Your task to perform on an android device: open app "Facebook Messenger" (install if not already installed) Image 0: 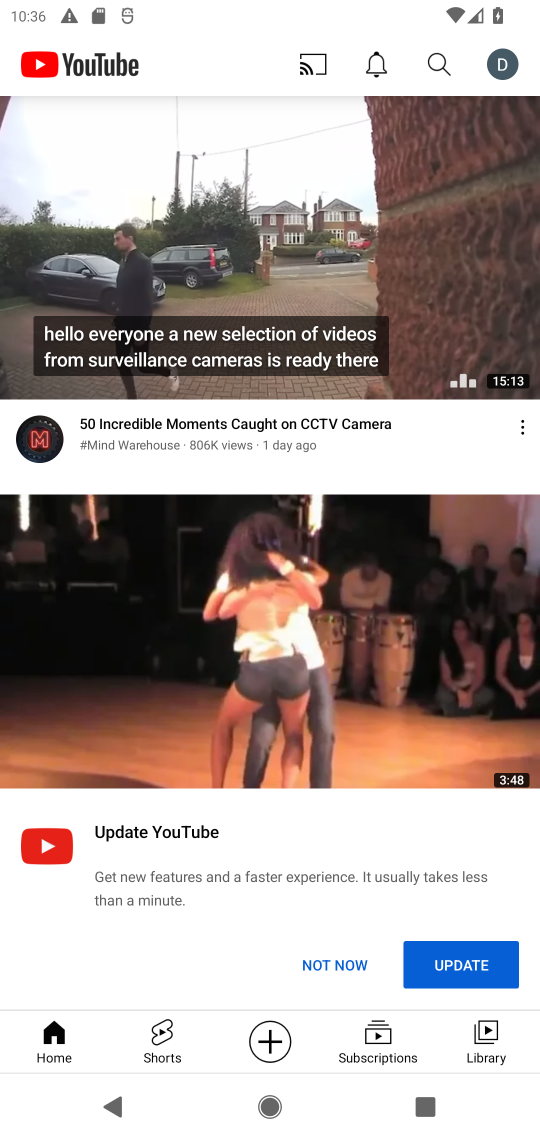
Step 0: press home button
Your task to perform on an android device: open app "Facebook Messenger" (install if not already installed) Image 1: 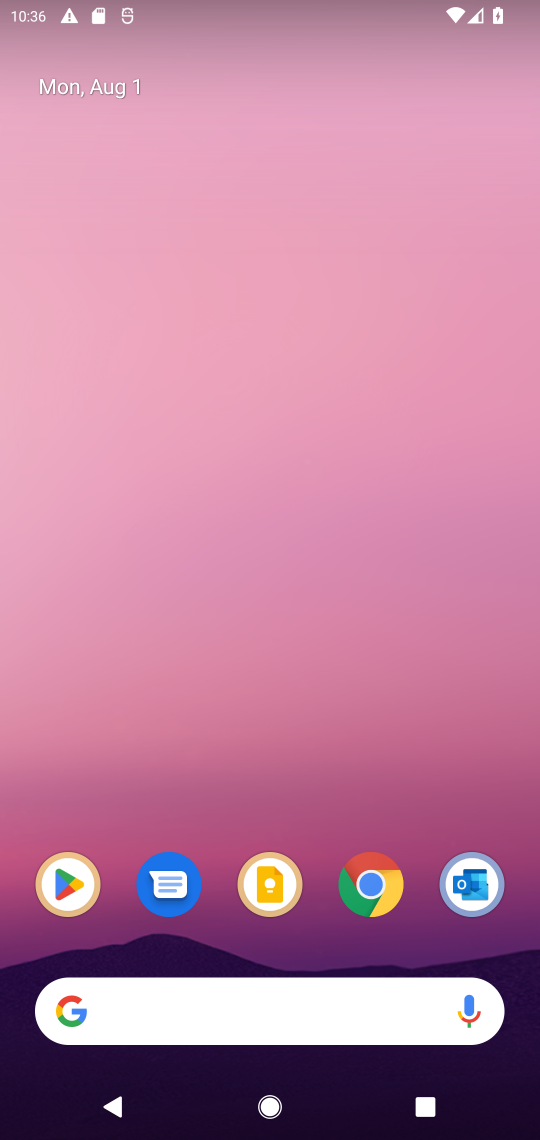
Step 1: click (41, 893)
Your task to perform on an android device: open app "Facebook Messenger" (install if not already installed) Image 2: 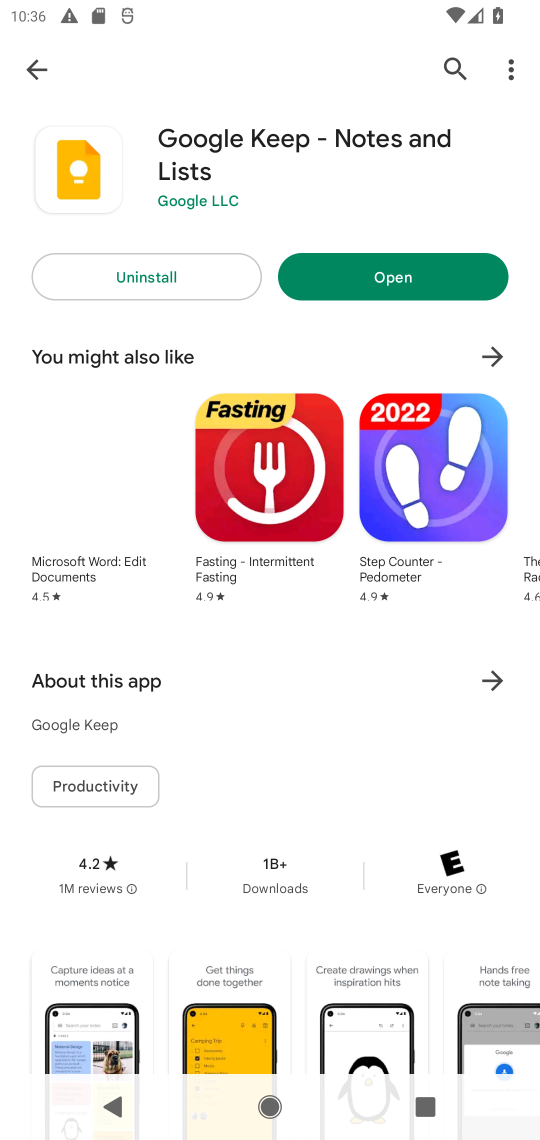
Step 2: click (456, 69)
Your task to perform on an android device: open app "Facebook Messenger" (install if not already installed) Image 3: 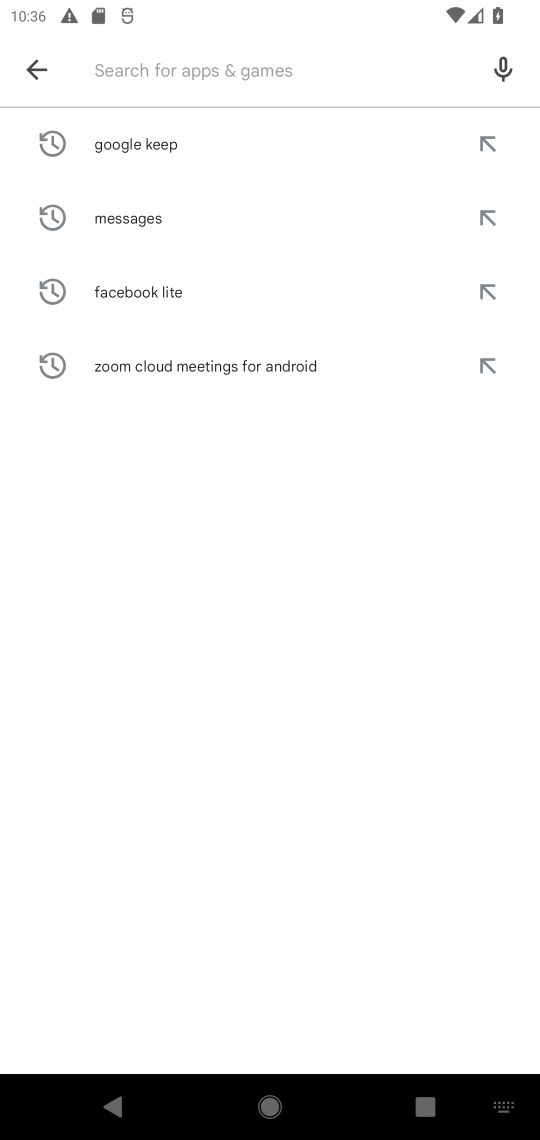
Step 3: type "facebook messenger"
Your task to perform on an android device: open app "Facebook Messenger" (install if not already installed) Image 4: 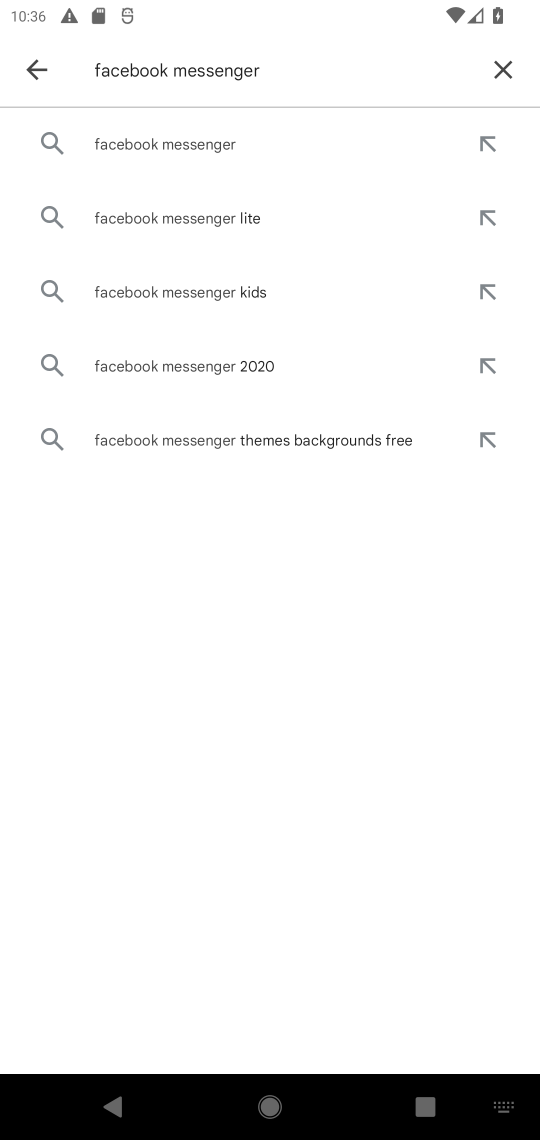
Step 4: click (159, 138)
Your task to perform on an android device: open app "Facebook Messenger" (install if not already installed) Image 5: 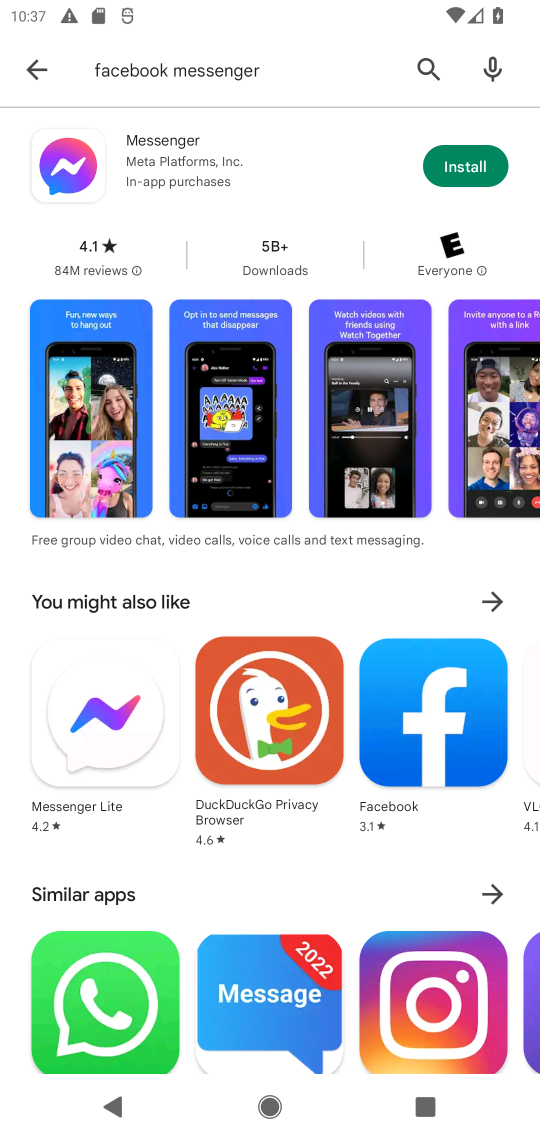
Step 5: click (161, 155)
Your task to perform on an android device: open app "Facebook Messenger" (install if not already installed) Image 6: 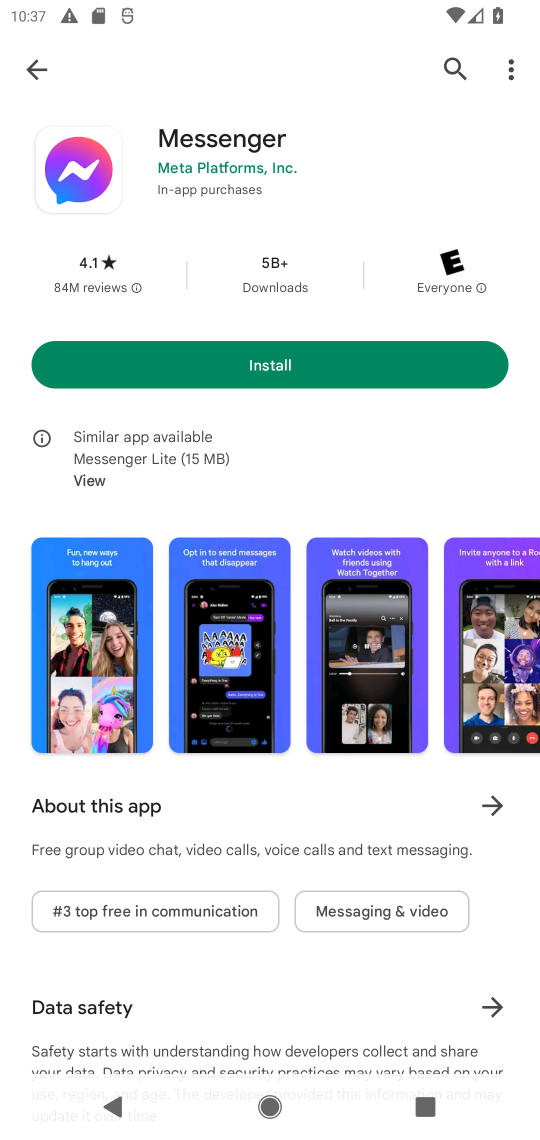
Step 6: click (280, 356)
Your task to perform on an android device: open app "Facebook Messenger" (install if not already installed) Image 7: 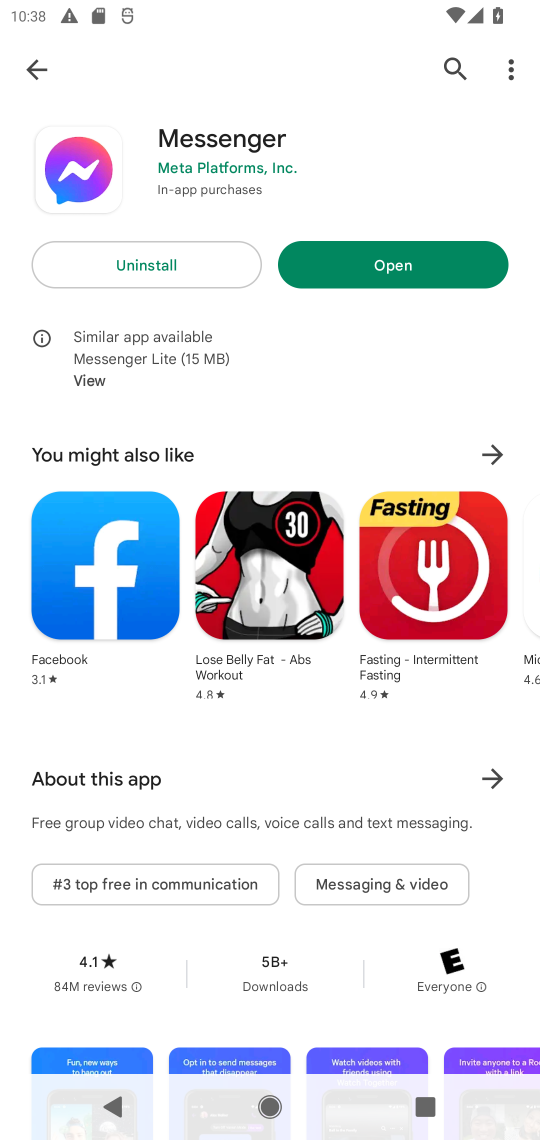
Step 7: click (378, 254)
Your task to perform on an android device: open app "Facebook Messenger" (install if not already installed) Image 8: 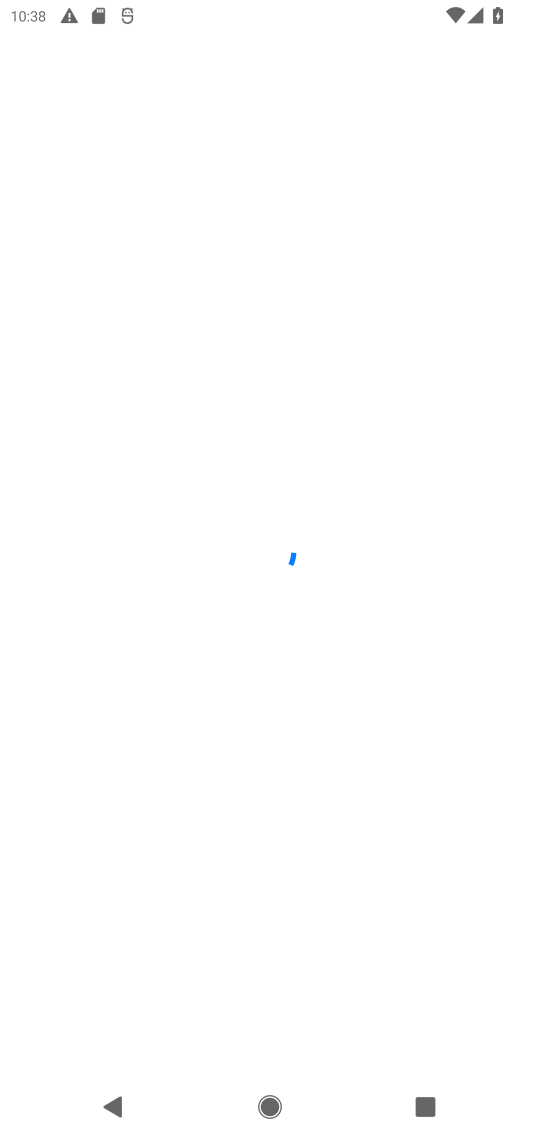
Step 8: task complete